Your task to perform on an android device: turn vacation reply on in the gmail app Image 0: 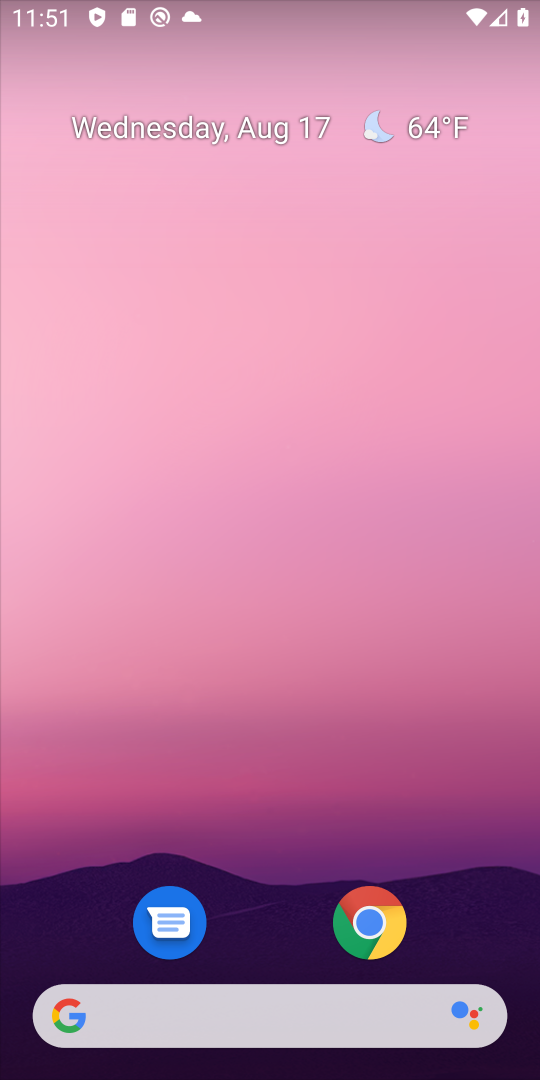
Step 0: drag from (255, 884) to (227, 32)
Your task to perform on an android device: turn vacation reply on in the gmail app Image 1: 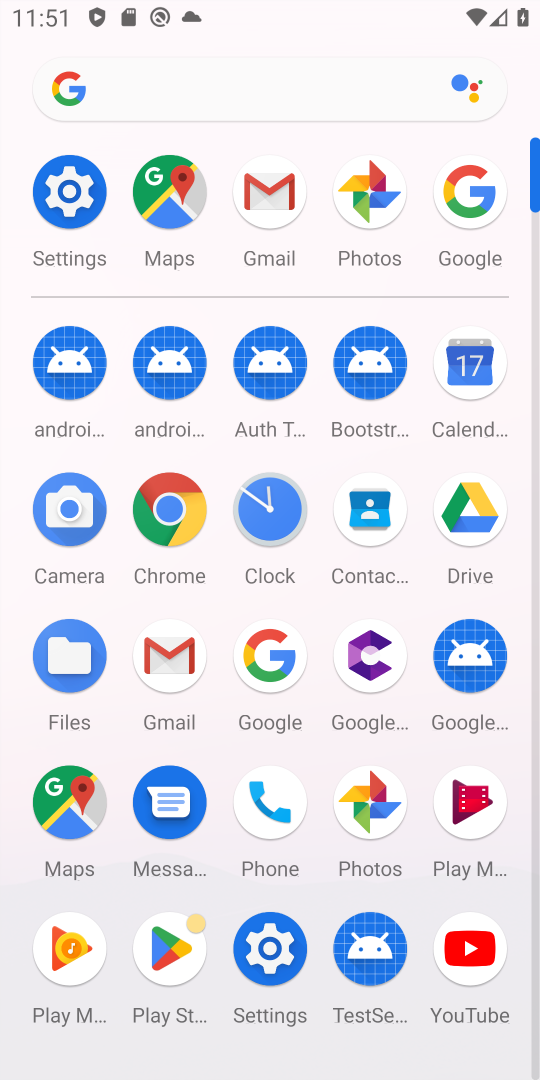
Step 1: click (255, 187)
Your task to perform on an android device: turn vacation reply on in the gmail app Image 2: 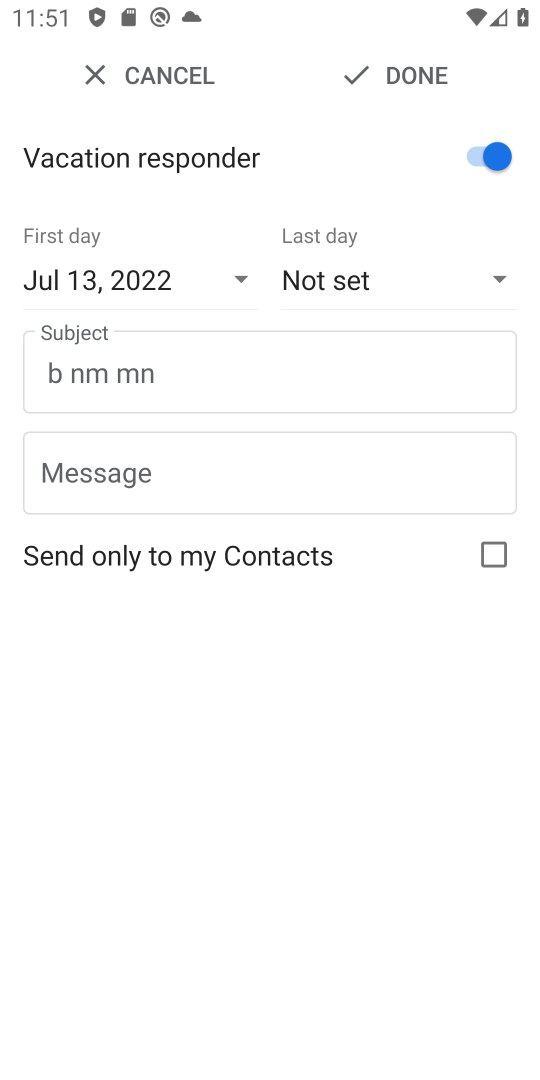
Step 2: task complete